Your task to perform on an android device: turn off priority inbox in the gmail app Image 0: 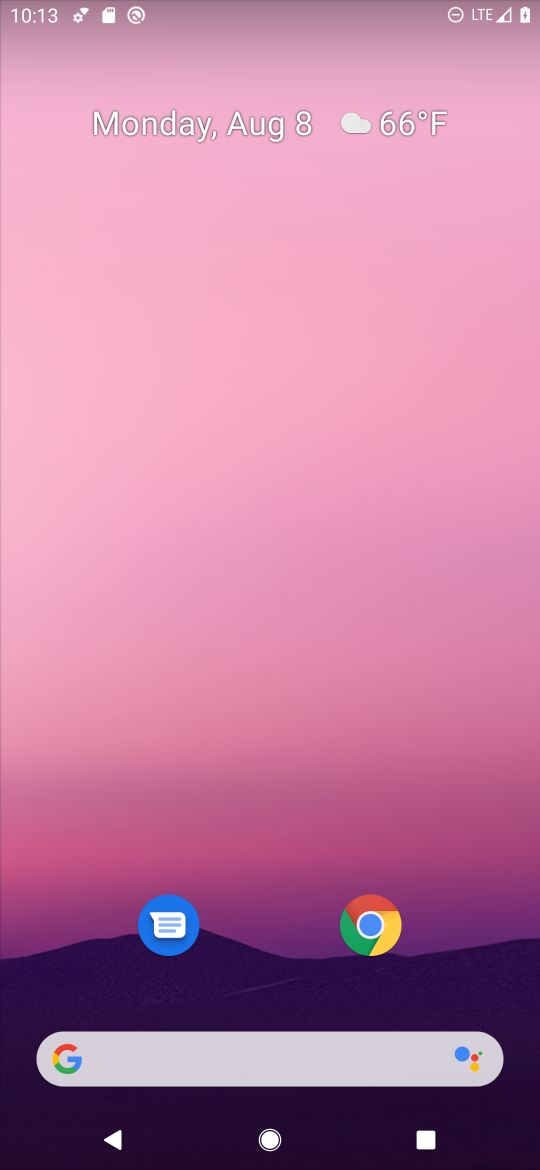
Step 0: drag from (255, 975) to (238, 164)
Your task to perform on an android device: turn off priority inbox in the gmail app Image 1: 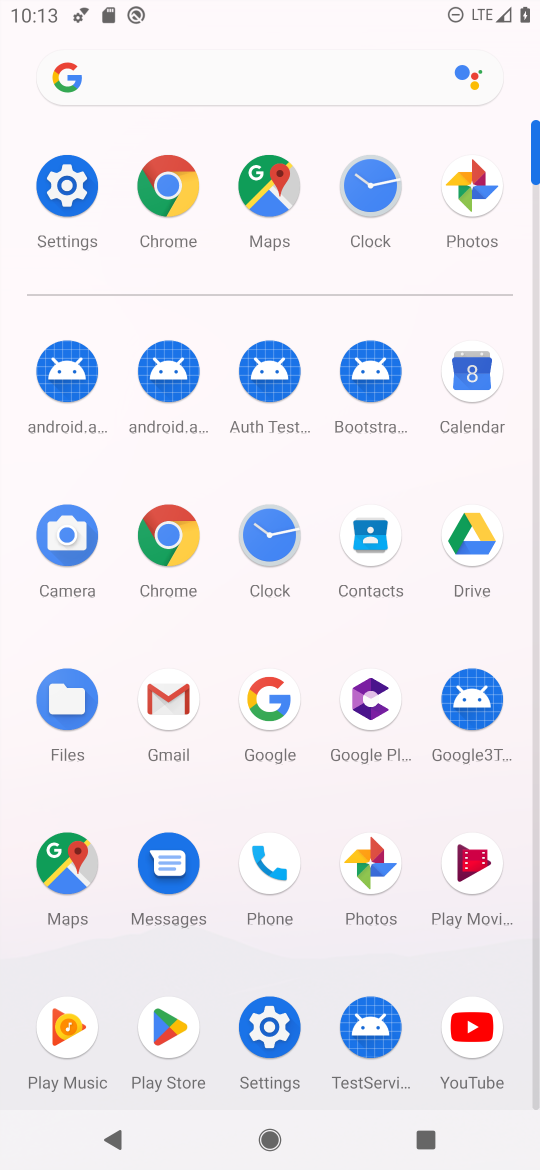
Step 1: click (180, 710)
Your task to perform on an android device: turn off priority inbox in the gmail app Image 2: 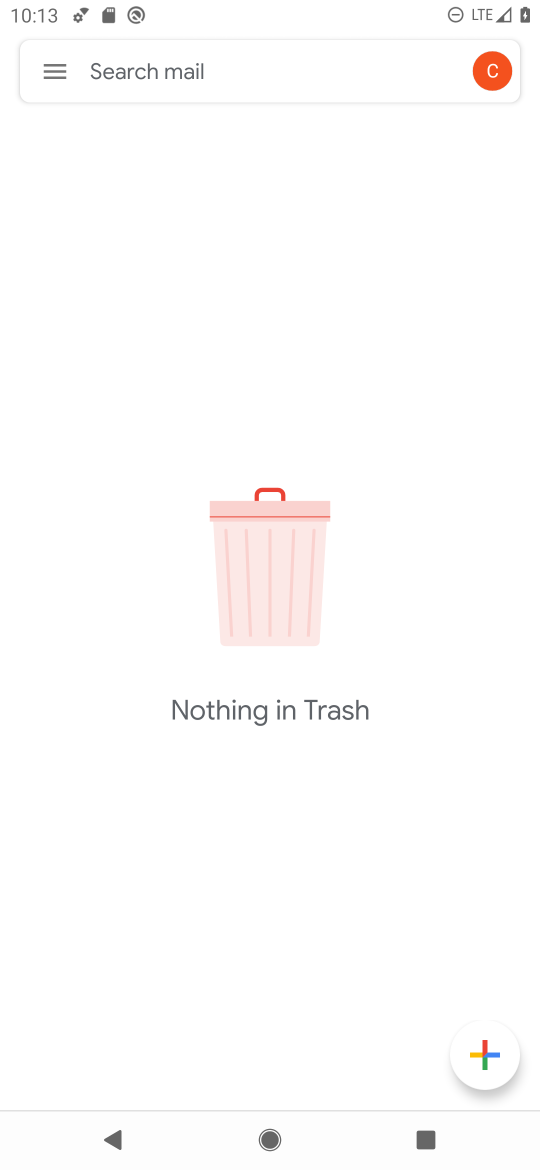
Step 2: click (51, 65)
Your task to perform on an android device: turn off priority inbox in the gmail app Image 3: 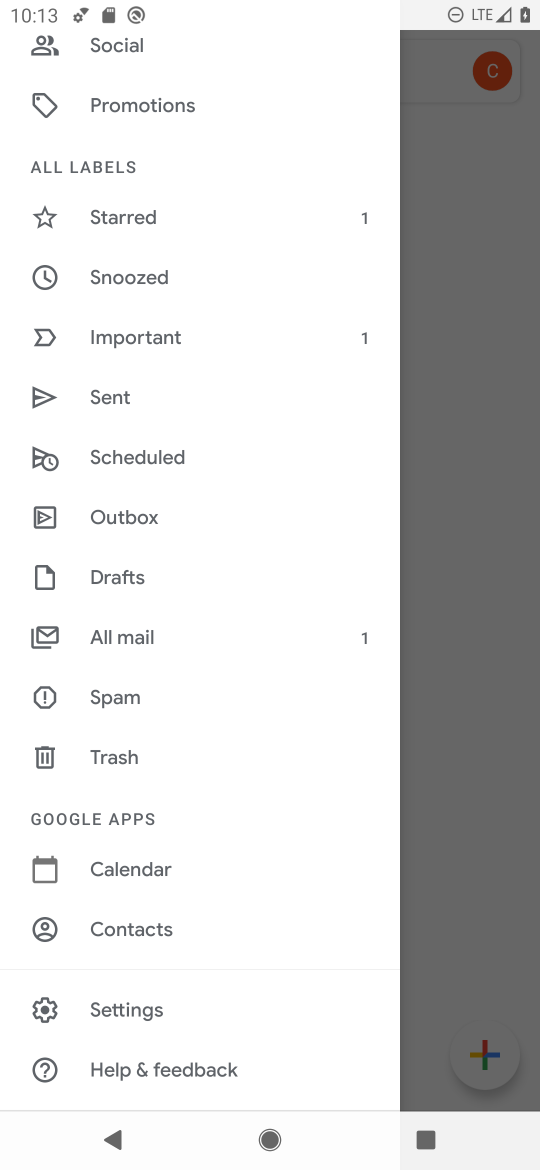
Step 3: click (103, 1006)
Your task to perform on an android device: turn off priority inbox in the gmail app Image 4: 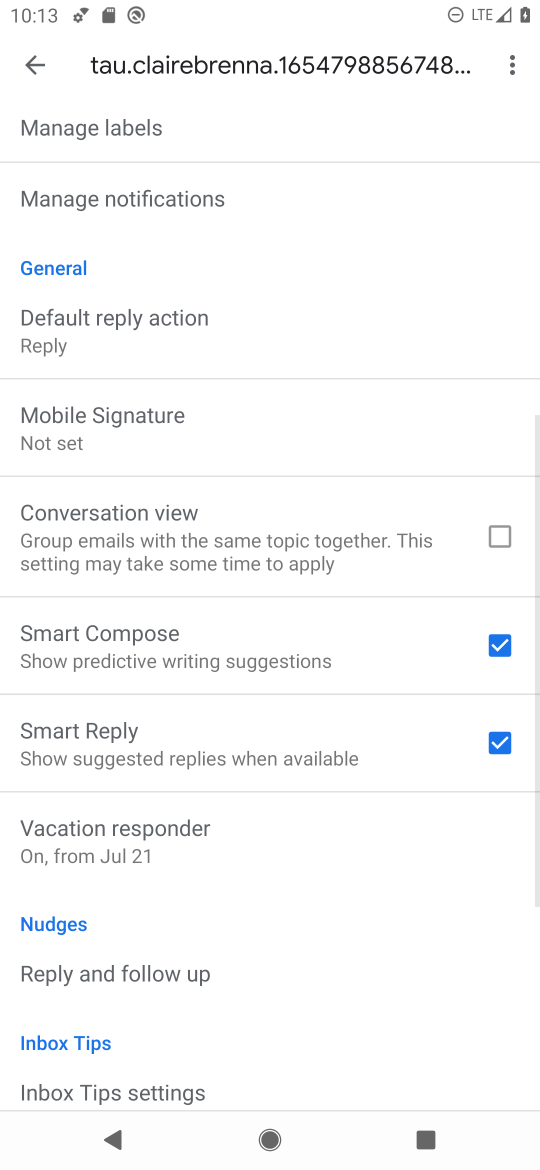
Step 4: drag from (209, 219) to (203, 743)
Your task to perform on an android device: turn off priority inbox in the gmail app Image 5: 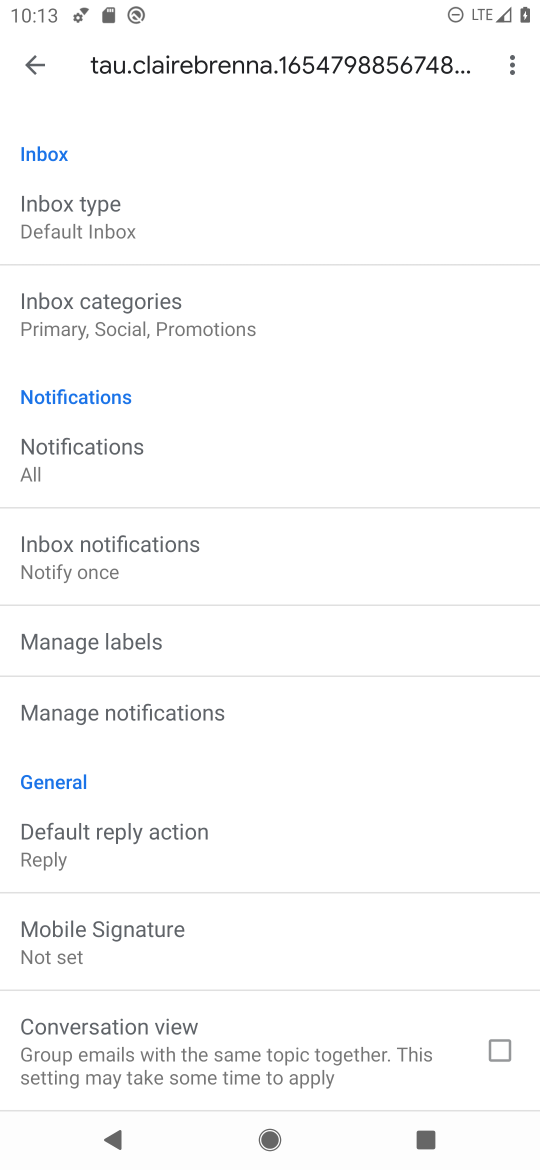
Step 5: drag from (281, 228) to (289, 747)
Your task to perform on an android device: turn off priority inbox in the gmail app Image 6: 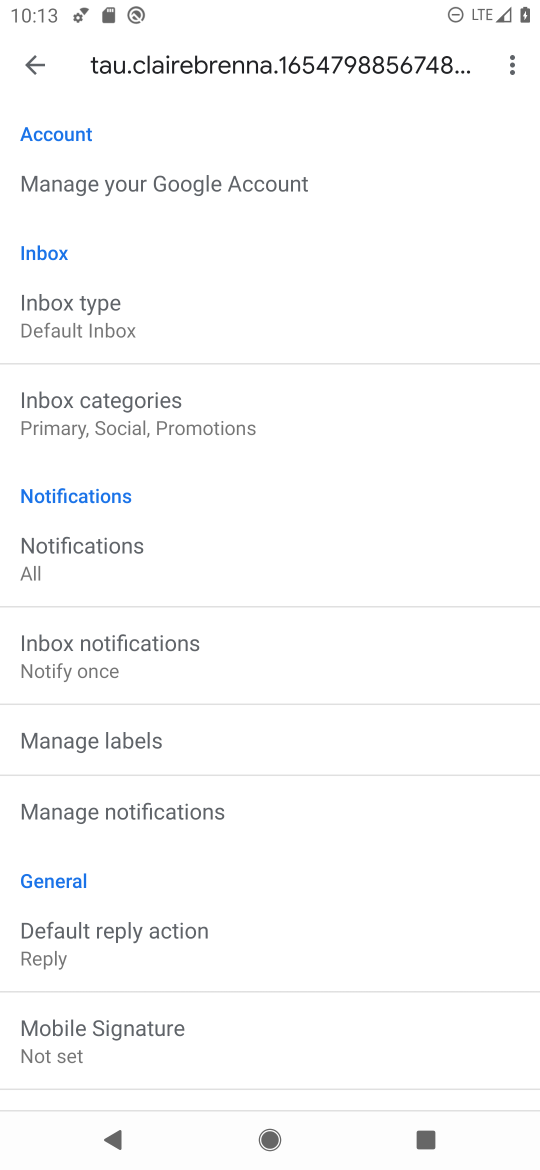
Step 6: click (92, 311)
Your task to perform on an android device: turn off priority inbox in the gmail app Image 7: 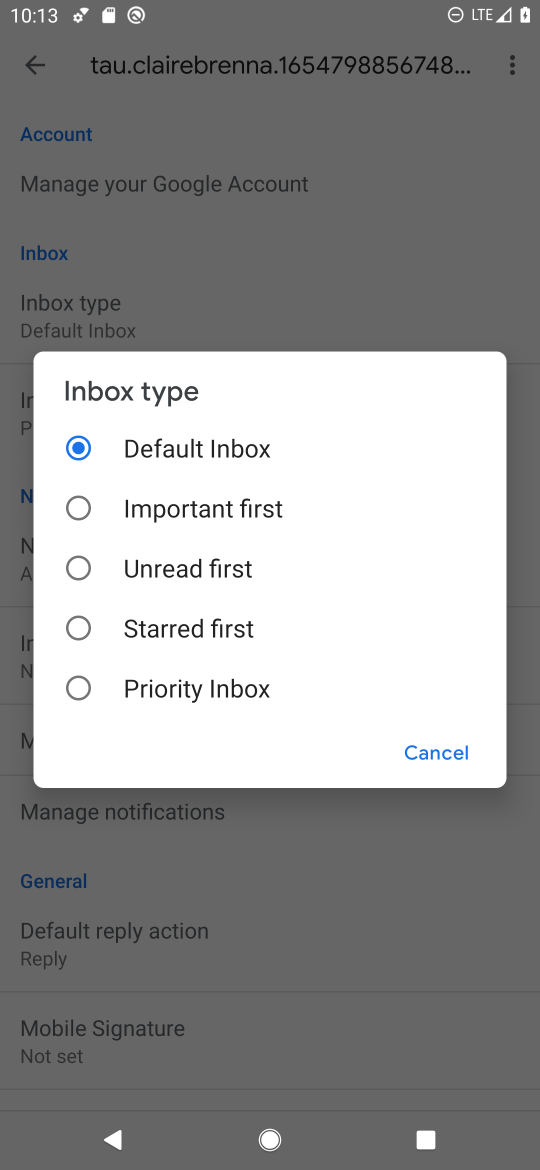
Step 7: task complete